Your task to perform on an android device: change the clock display to show seconds Image 0: 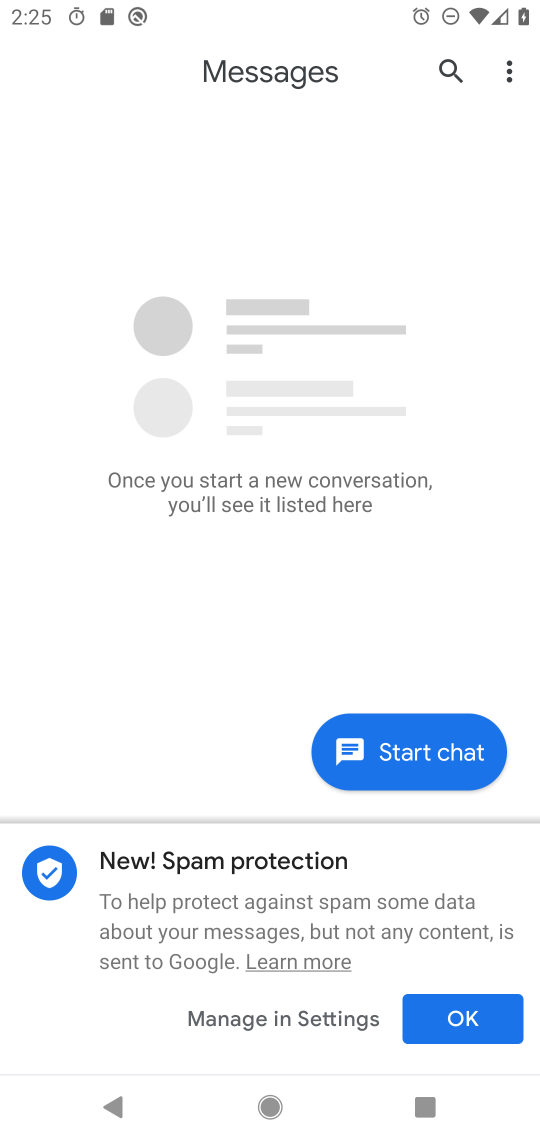
Step 0: press home button
Your task to perform on an android device: change the clock display to show seconds Image 1: 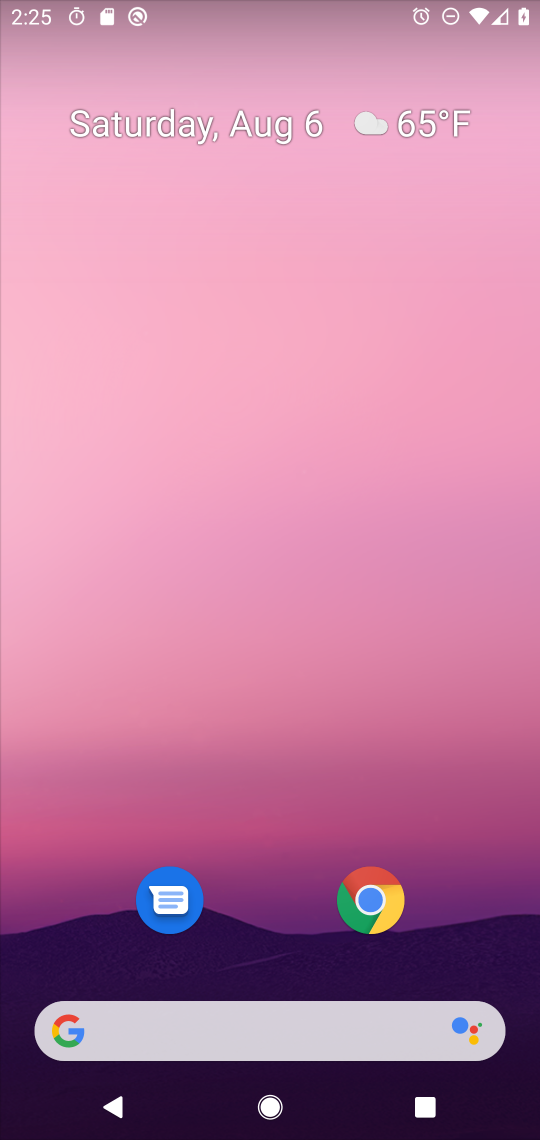
Step 1: drag from (268, 597) to (279, 99)
Your task to perform on an android device: change the clock display to show seconds Image 2: 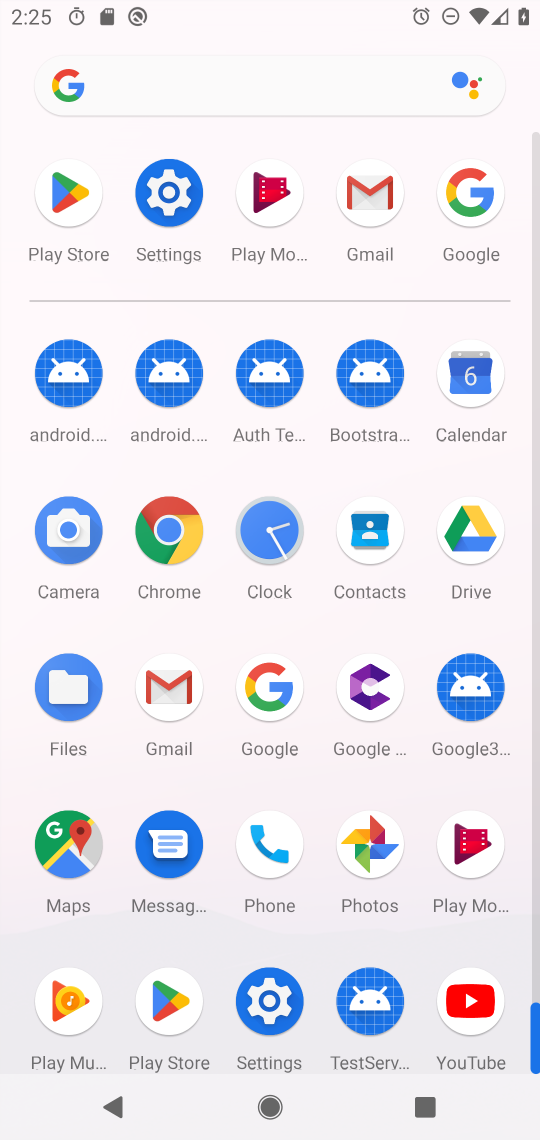
Step 2: click (261, 521)
Your task to perform on an android device: change the clock display to show seconds Image 3: 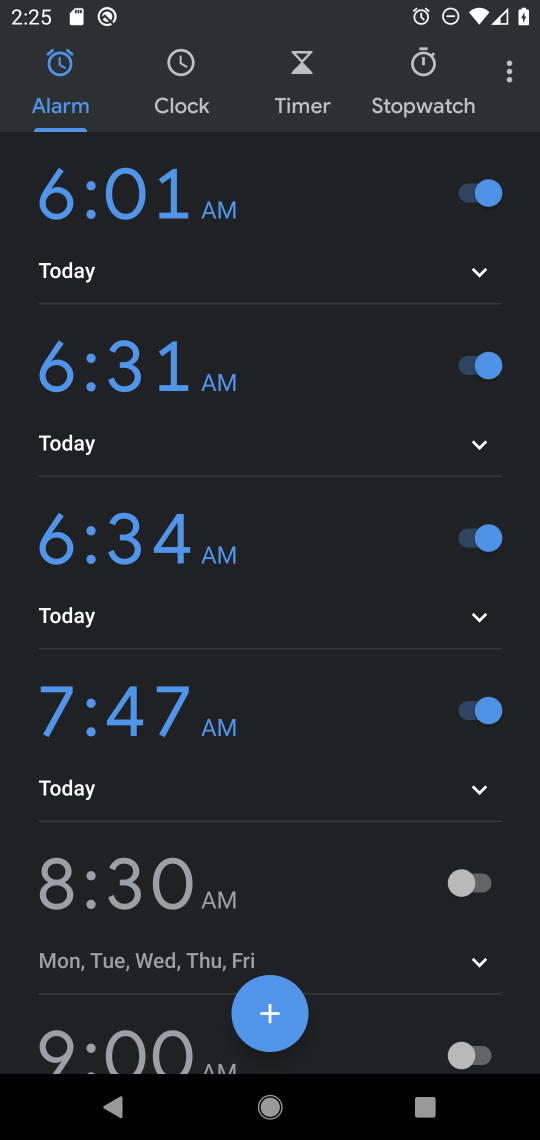
Step 3: click (511, 76)
Your task to perform on an android device: change the clock display to show seconds Image 4: 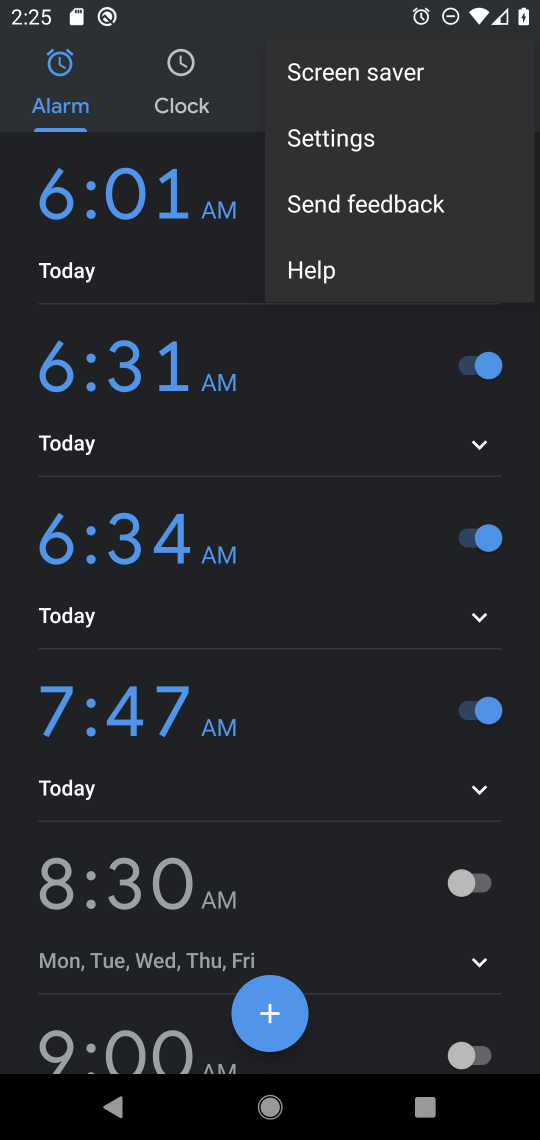
Step 4: click (303, 123)
Your task to perform on an android device: change the clock display to show seconds Image 5: 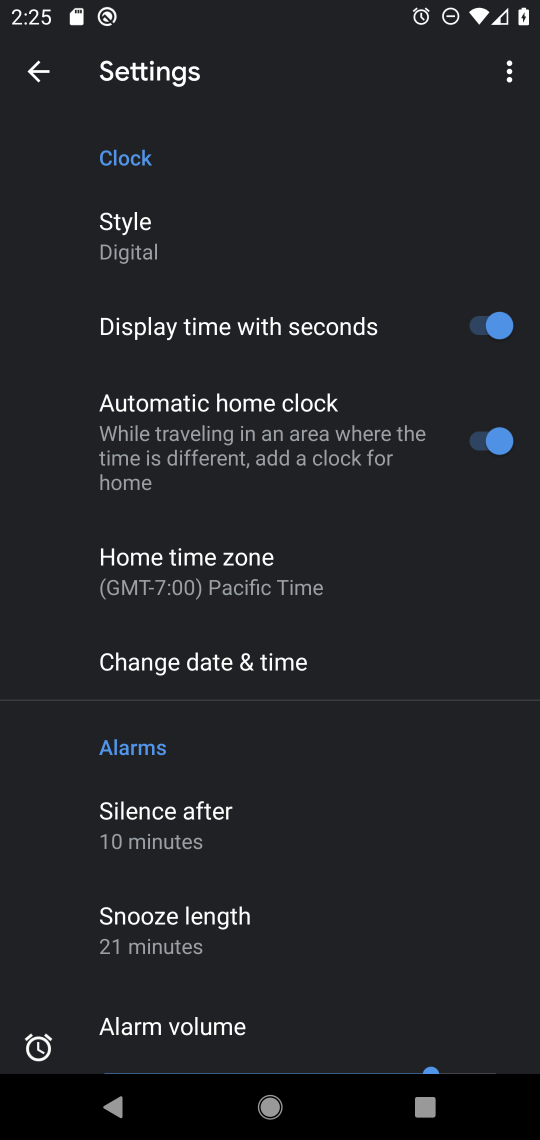
Step 5: task complete